Your task to perform on an android device: empty trash in google photos Image 0: 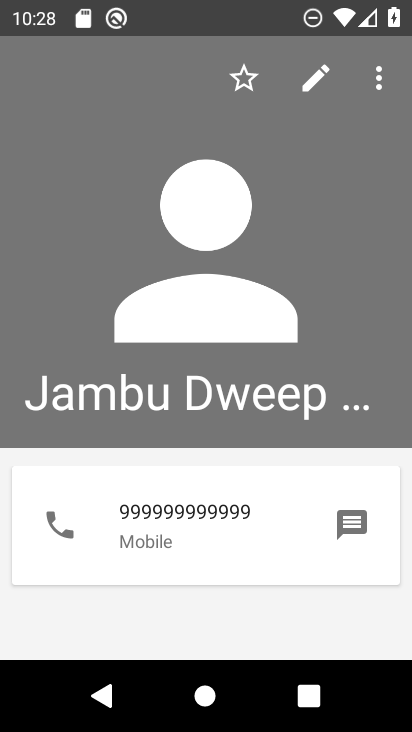
Step 0: press home button
Your task to perform on an android device: empty trash in google photos Image 1: 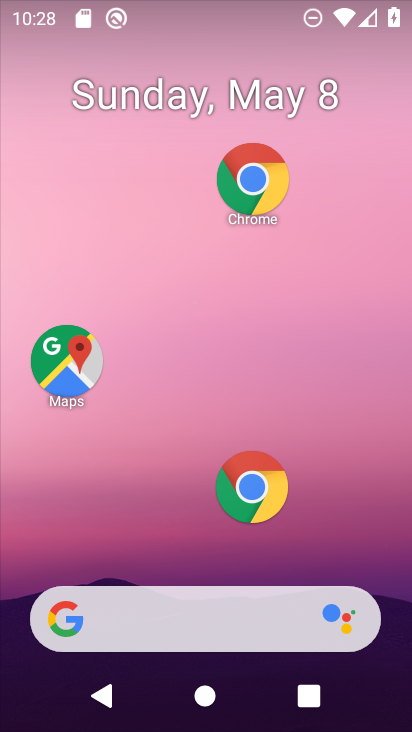
Step 1: drag from (173, 490) to (215, 14)
Your task to perform on an android device: empty trash in google photos Image 2: 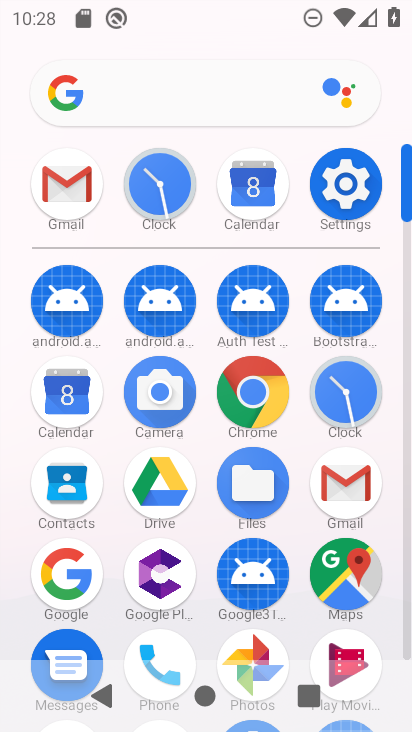
Step 2: click (240, 649)
Your task to perform on an android device: empty trash in google photos Image 3: 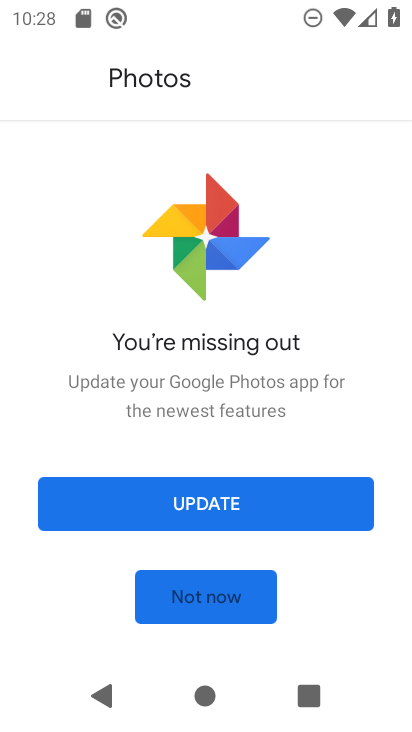
Step 3: click (250, 495)
Your task to perform on an android device: empty trash in google photos Image 4: 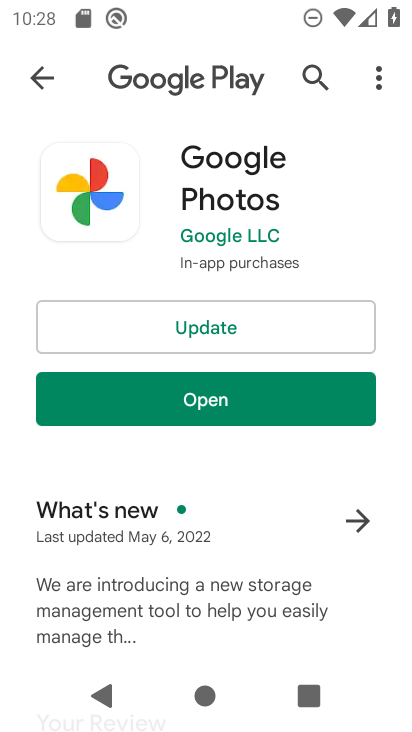
Step 4: click (263, 394)
Your task to perform on an android device: empty trash in google photos Image 5: 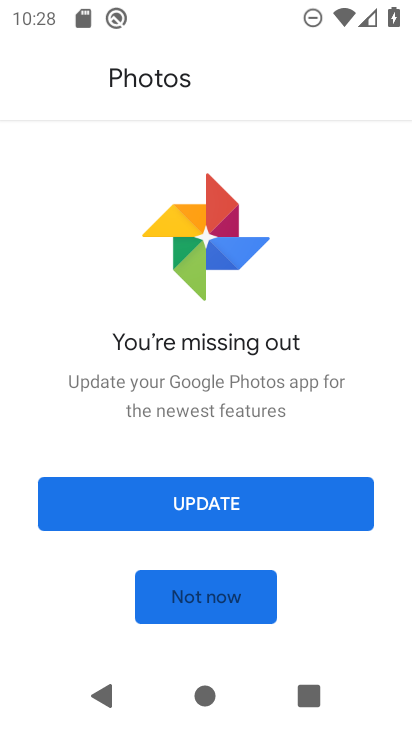
Step 5: click (224, 501)
Your task to perform on an android device: empty trash in google photos Image 6: 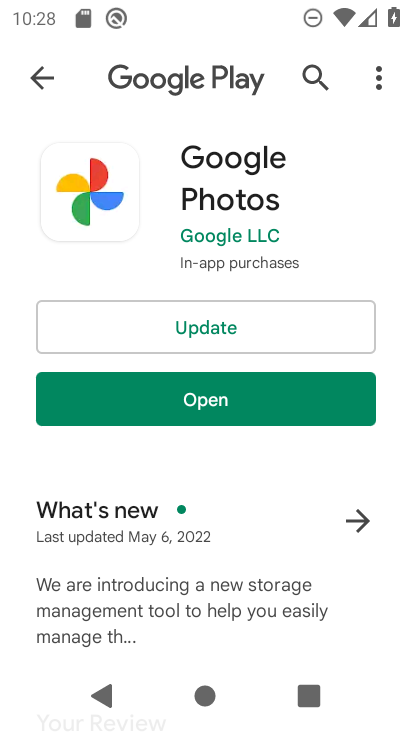
Step 6: click (297, 321)
Your task to perform on an android device: empty trash in google photos Image 7: 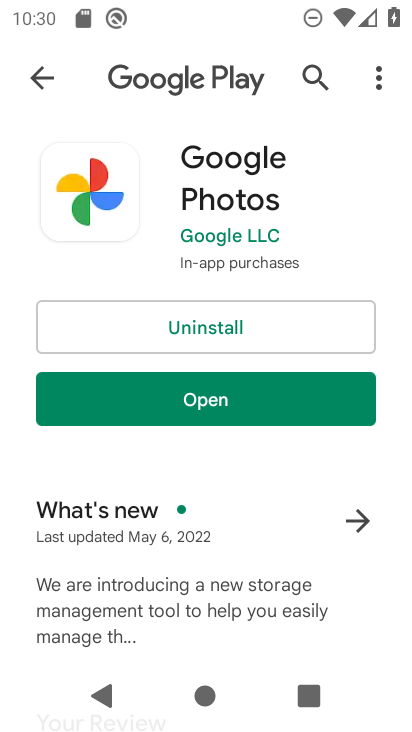
Step 7: click (325, 411)
Your task to perform on an android device: empty trash in google photos Image 8: 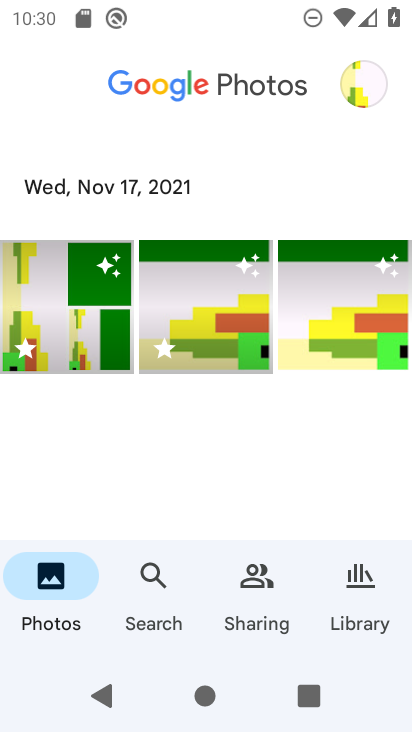
Step 8: click (154, 581)
Your task to perform on an android device: empty trash in google photos Image 9: 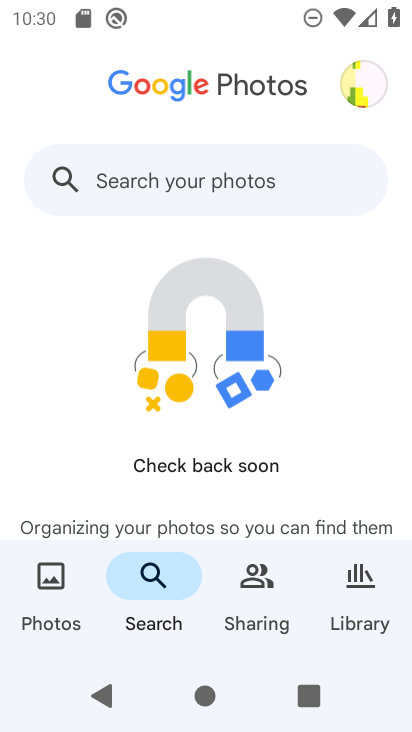
Step 9: click (265, 175)
Your task to perform on an android device: empty trash in google photos Image 10: 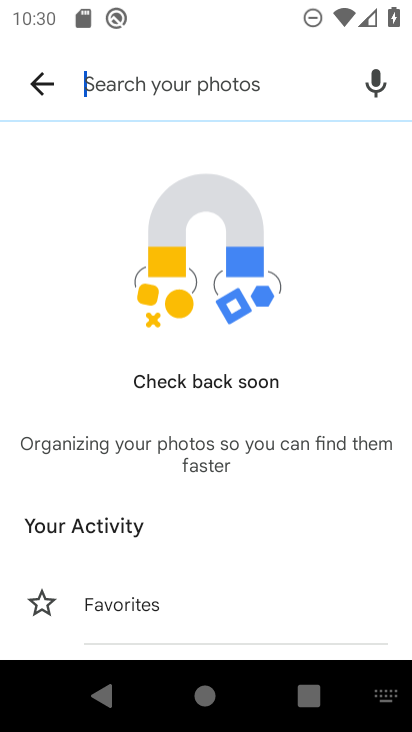
Step 10: type "trash"
Your task to perform on an android device: empty trash in google photos Image 11: 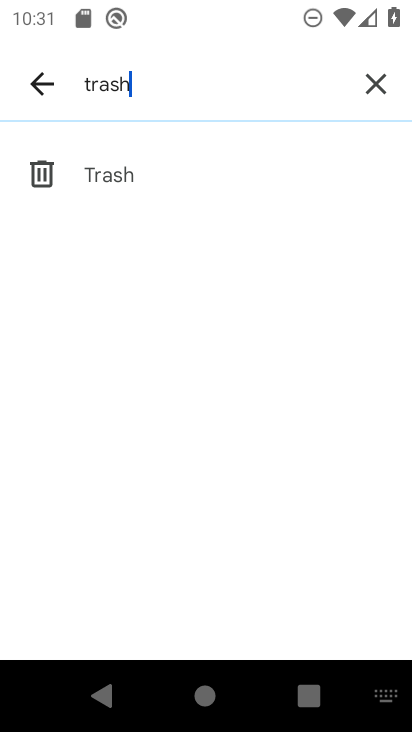
Step 11: click (98, 173)
Your task to perform on an android device: empty trash in google photos Image 12: 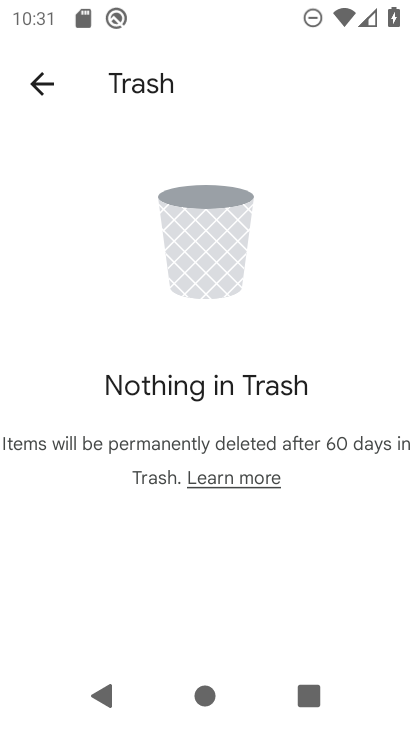
Step 12: task complete